Your task to perform on an android device: check battery use Image 0: 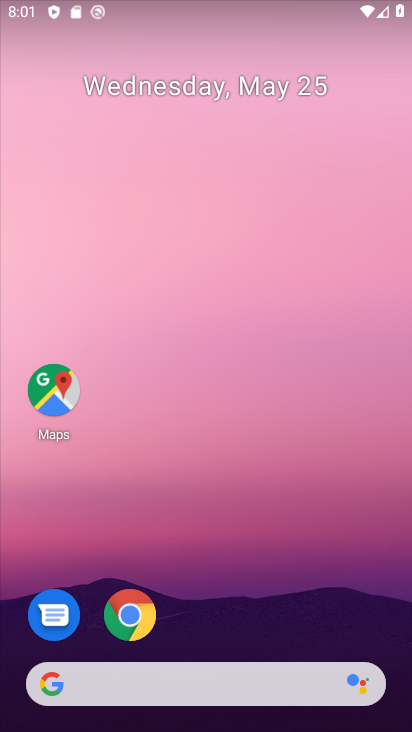
Step 0: drag from (128, 723) to (163, 145)
Your task to perform on an android device: check battery use Image 1: 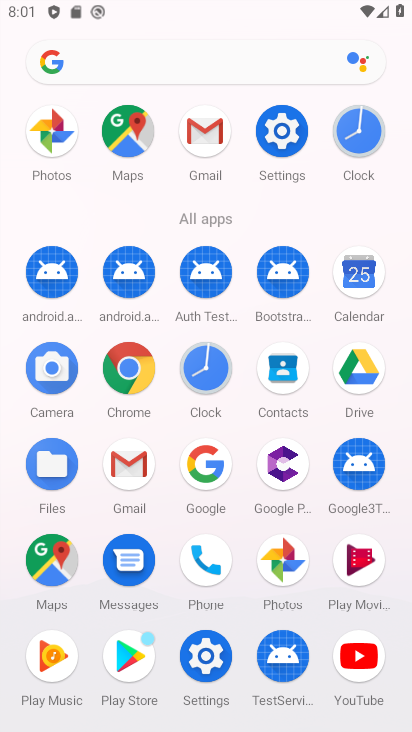
Step 1: click (290, 149)
Your task to perform on an android device: check battery use Image 2: 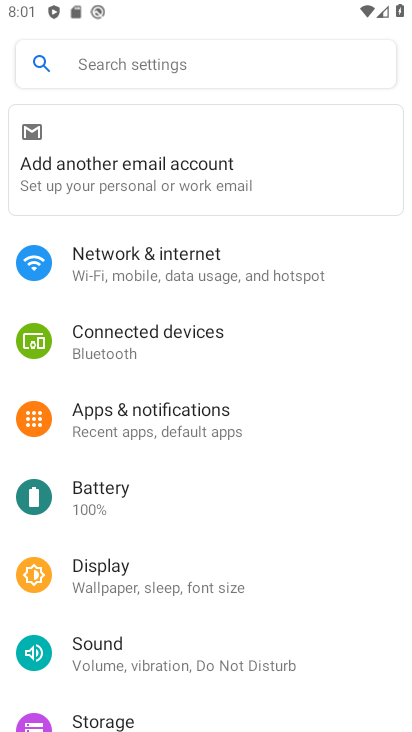
Step 2: click (149, 486)
Your task to perform on an android device: check battery use Image 3: 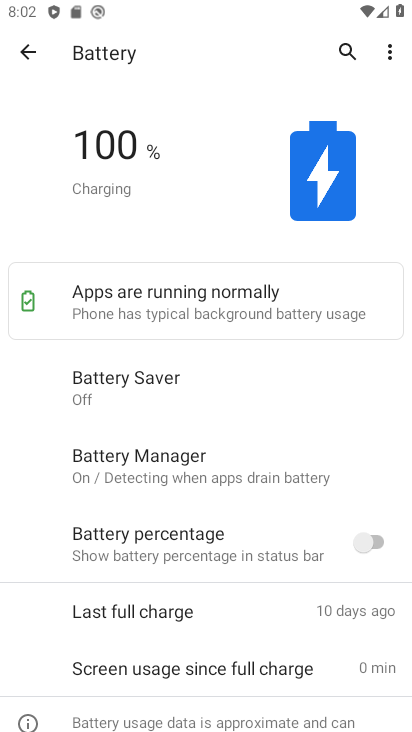
Step 3: click (386, 50)
Your task to perform on an android device: check battery use Image 4: 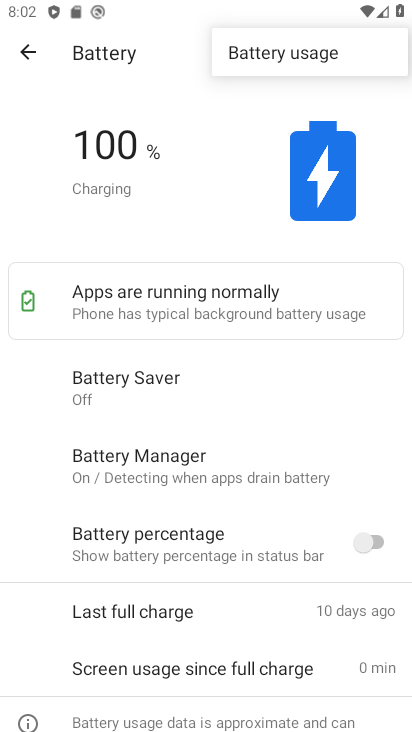
Step 4: click (325, 55)
Your task to perform on an android device: check battery use Image 5: 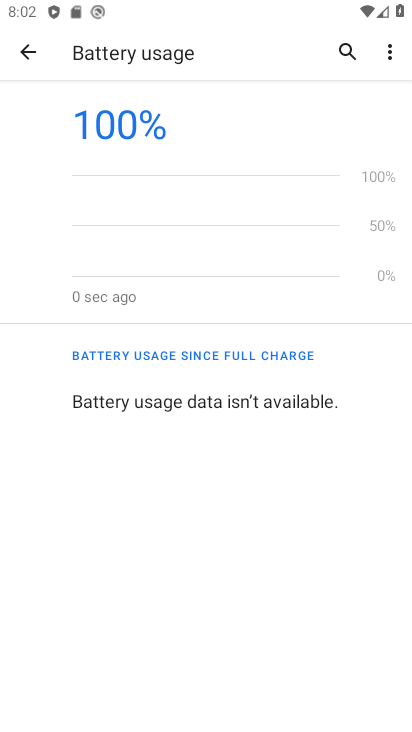
Step 5: task complete